Your task to perform on an android device: Go to privacy settings Image 0: 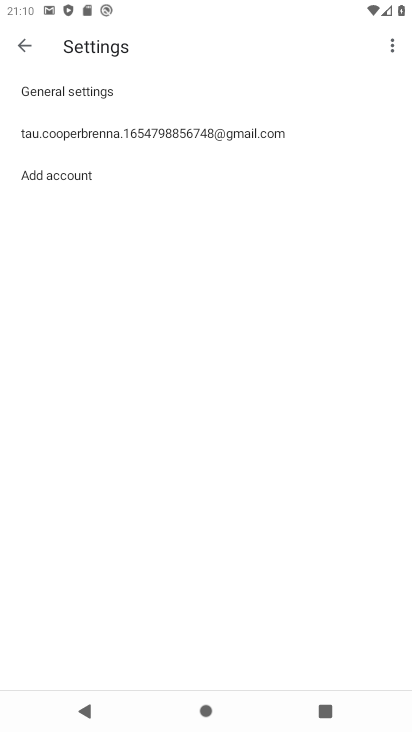
Step 0: click (161, 134)
Your task to perform on an android device: Go to privacy settings Image 1: 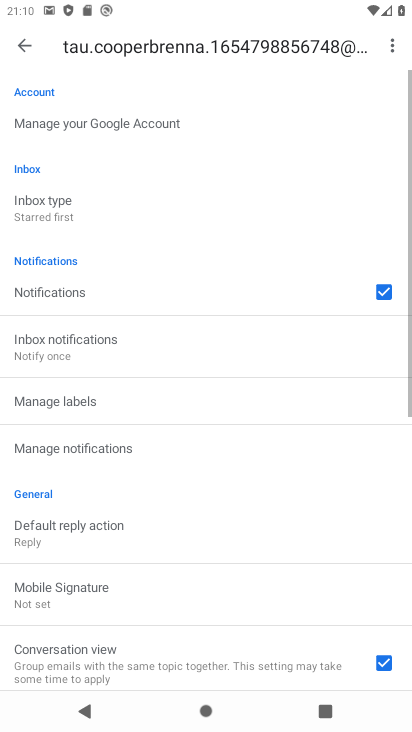
Step 1: click (20, 32)
Your task to perform on an android device: Go to privacy settings Image 2: 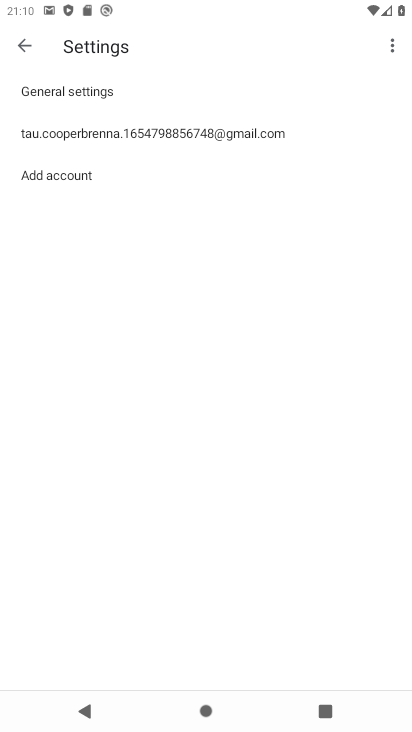
Step 2: click (32, 37)
Your task to perform on an android device: Go to privacy settings Image 3: 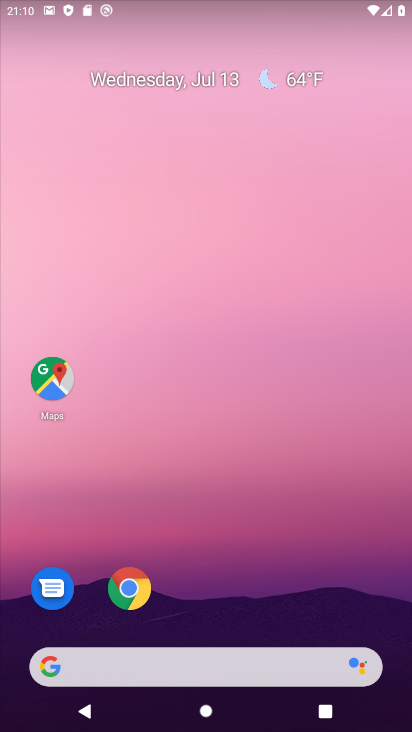
Step 3: drag from (319, 589) to (280, 73)
Your task to perform on an android device: Go to privacy settings Image 4: 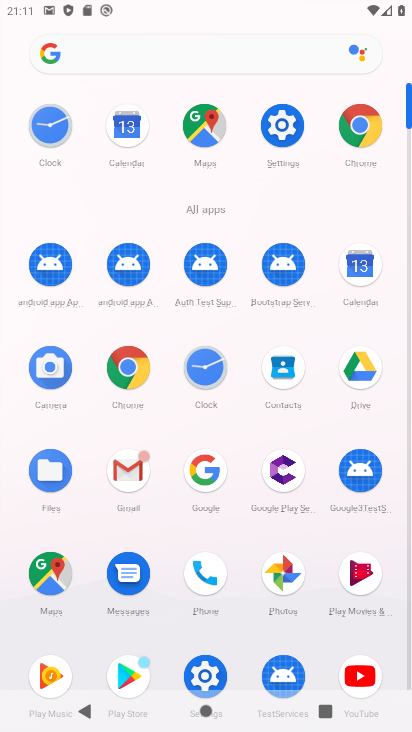
Step 4: click (283, 129)
Your task to perform on an android device: Go to privacy settings Image 5: 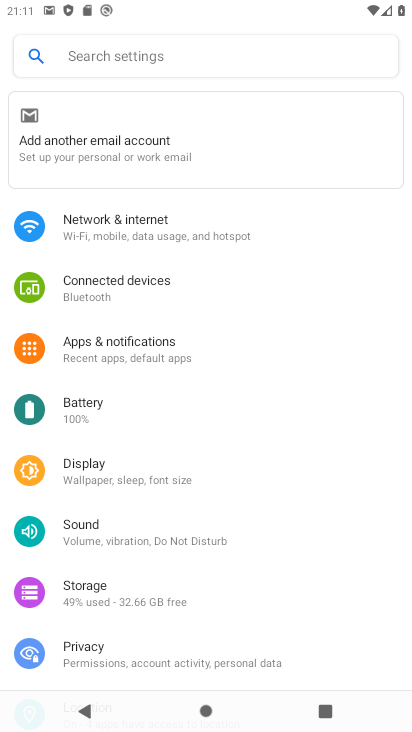
Step 5: click (142, 667)
Your task to perform on an android device: Go to privacy settings Image 6: 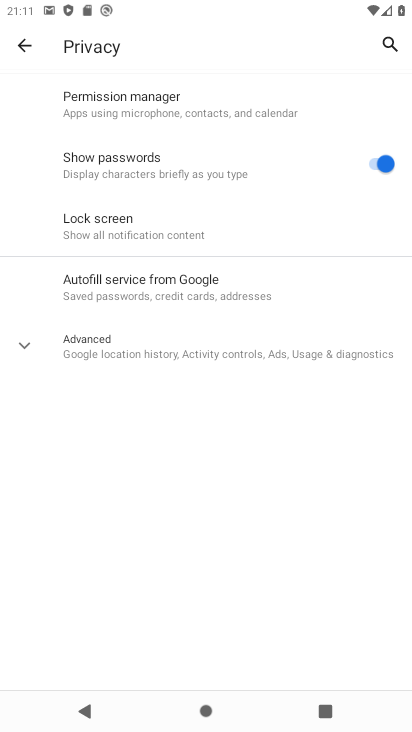
Step 6: task complete